Your task to perform on an android device: Open Google Chrome Image 0: 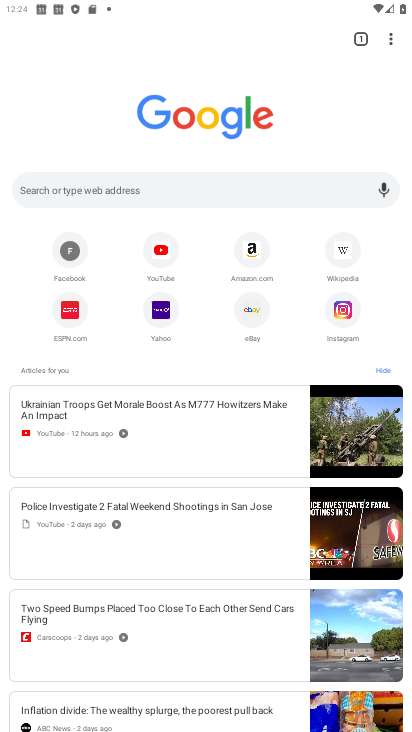
Step 0: task complete